Your task to perform on an android device: Open Android settings Image 0: 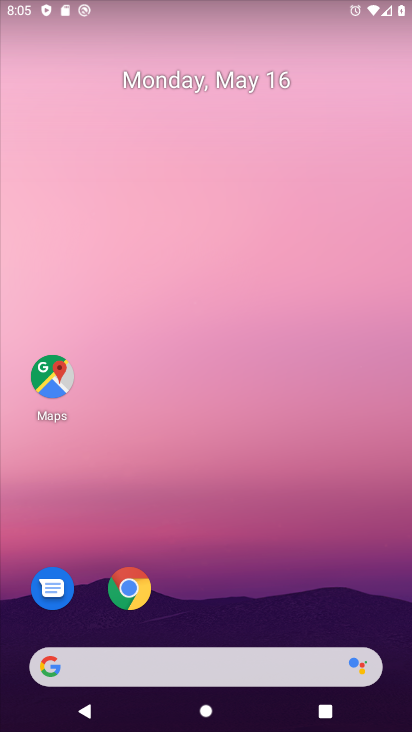
Step 0: drag from (323, 693) to (129, 167)
Your task to perform on an android device: Open Android settings Image 1: 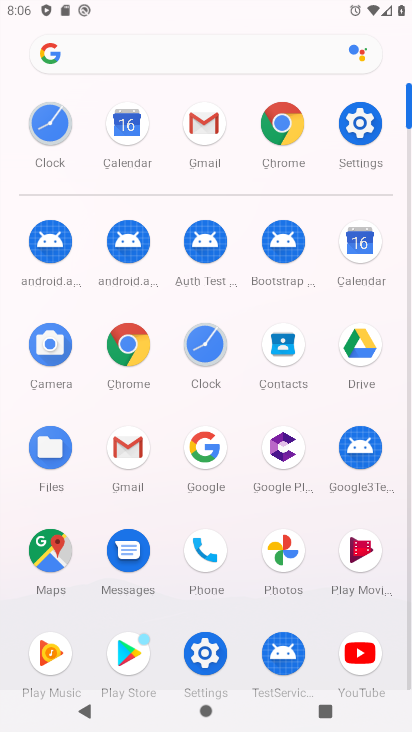
Step 1: click (360, 124)
Your task to perform on an android device: Open Android settings Image 2: 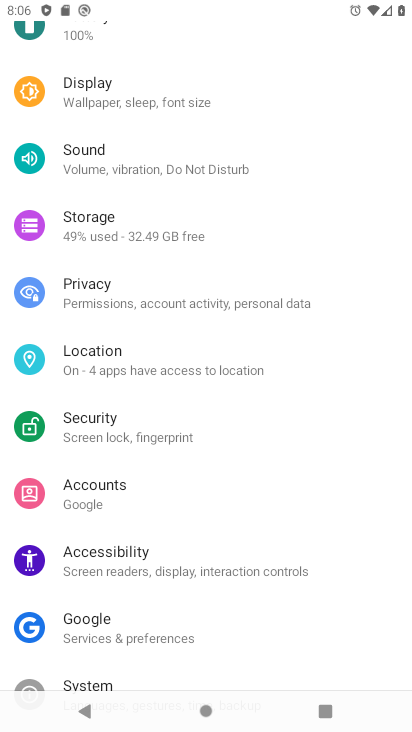
Step 2: drag from (143, 243) to (130, 143)
Your task to perform on an android device: Open Android settings Image 3: 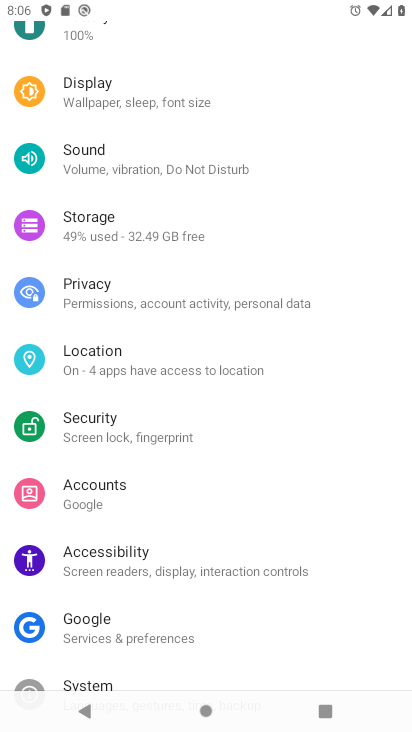
Step 3: drag from (187, 456) to (95, 61)
Your task to perform on an android device: Open Android settings Image 4: 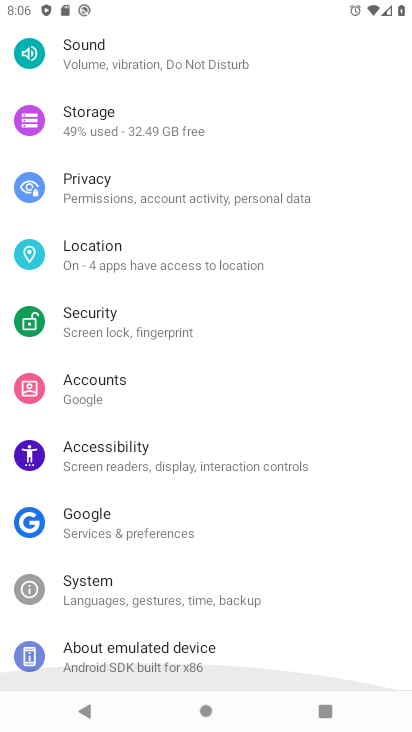
Step 4: drag from (151, 418) to (118, 119)
Your task to perform on an android device: Open Android settings Image 5: 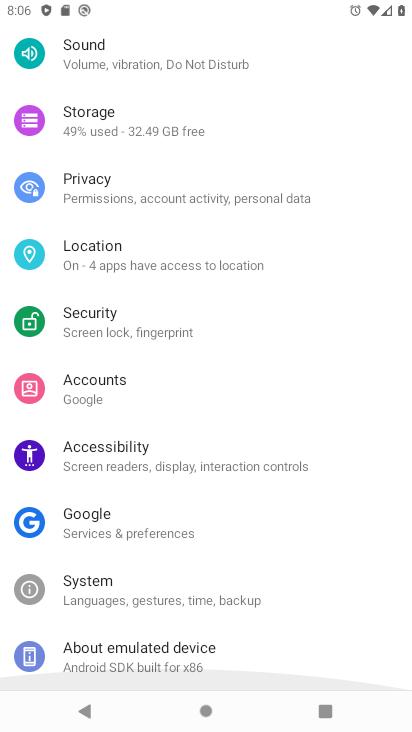
Step 5: drag from (100, 503) to (100, 196)
Your task to perform on an android device: Open Android settings Image 6: 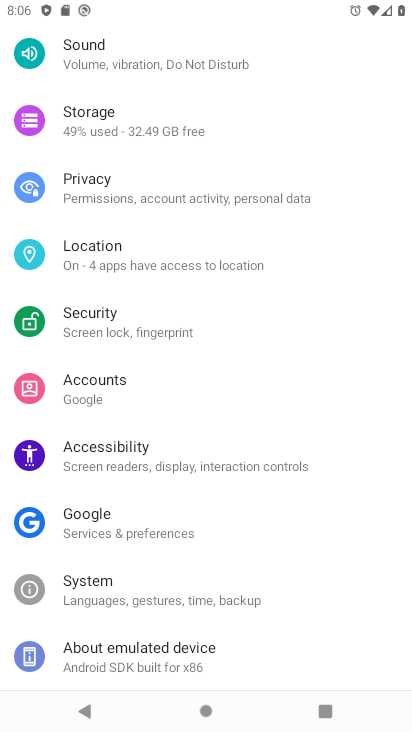
Step 6: click (123, 659)
Your task to perform on an android device: Open Android settings Image 7: 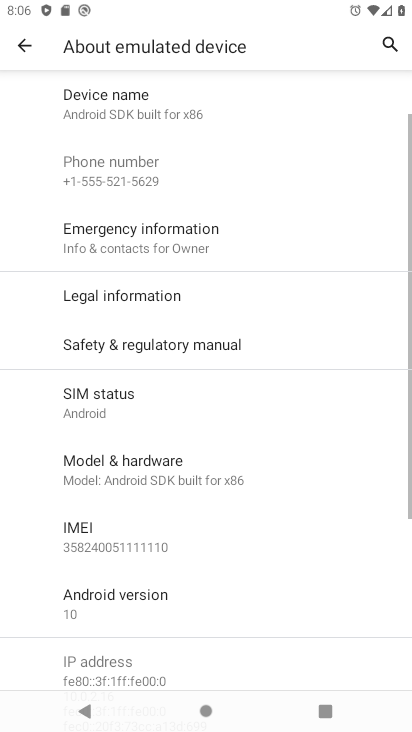
Step 7: task complete